Your task to perform on an android device: What's on my calendar today? Image 0: 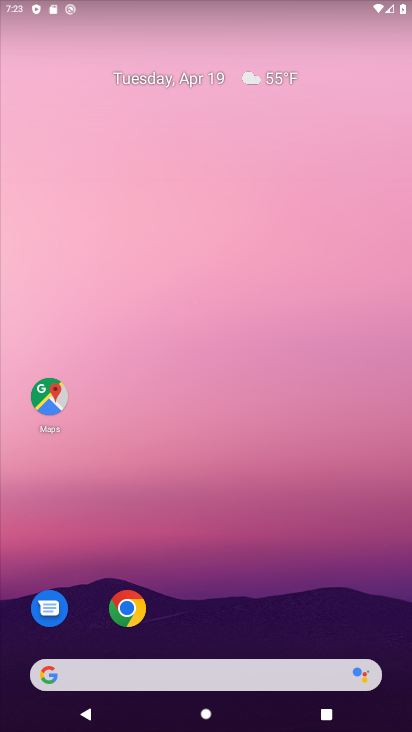
Step 0: drag from (243, 571) to (317, 259)
Your task to perform on an android device: What's on my calendar today? Image 1: 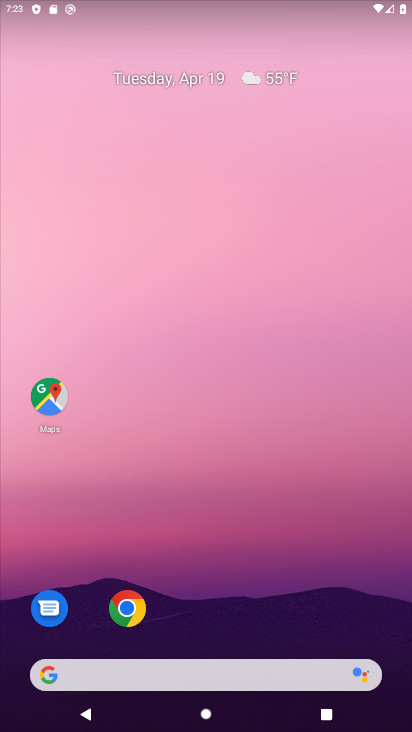
Step 1: drag from (191, 619) to (354, 198)
Your task to perform on an android device: What's on my calendar today? Image 2: 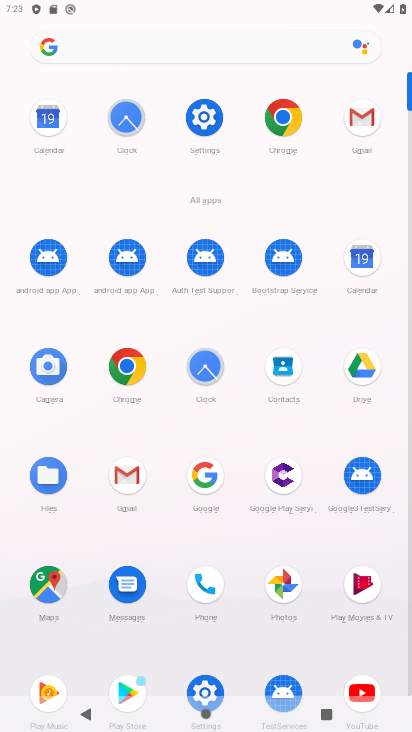
Step 2: click (362, 265)
Your task to perform on an android device: What's on my calendar today? Image 3: 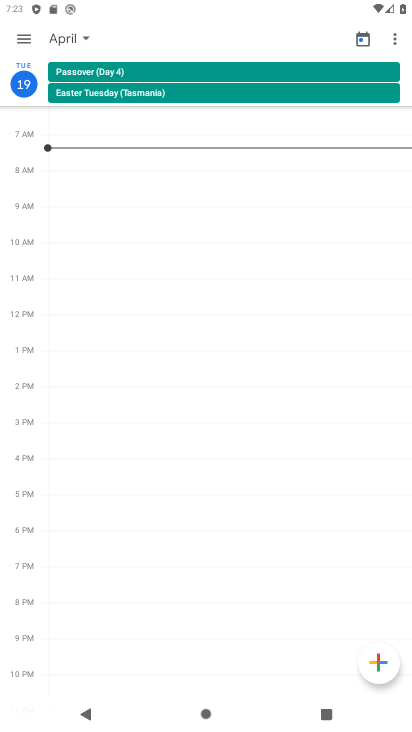
Step 3: click (81, 34)
Your task to perform on an android device: What's on my calendar today? Image 4: 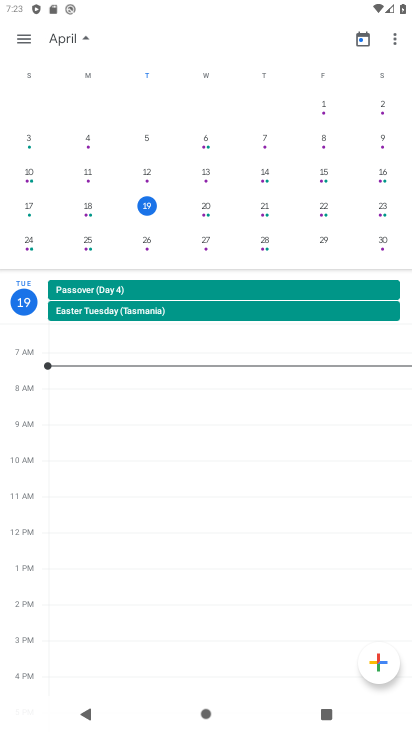
Step 4: click (149, 209)
Your task to perform on an android device: What's on my calendar today? Image 5: 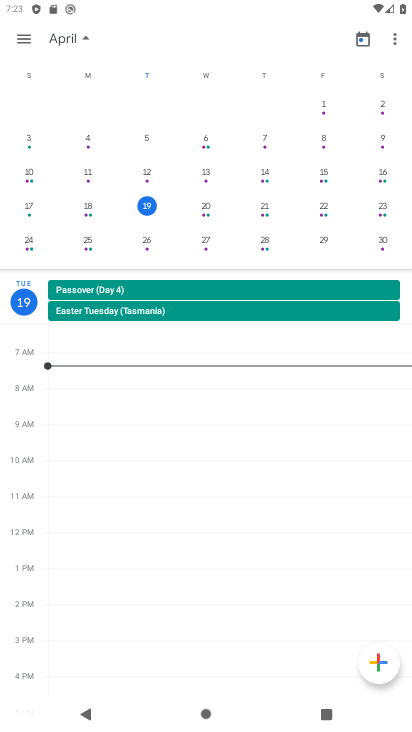
Step 5: click (149, 205)
Your task to perform on an android device: What's on my calendar today? Image 6: 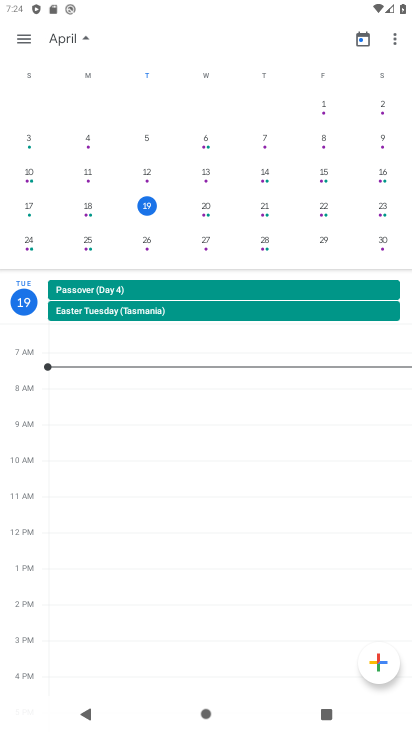
Step 6: click (152, 199)
Your task to perform on an android device: What's on my calendar today? Image 7: 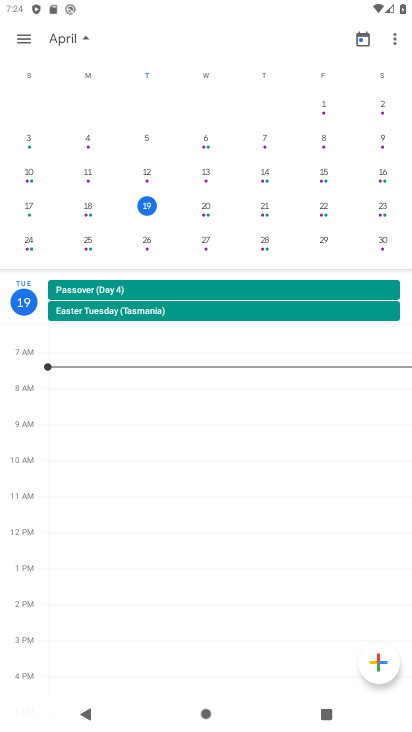
Step 7: task complete